Your task to perform on an android device: move an email to a new category in the gmail app Image 0: 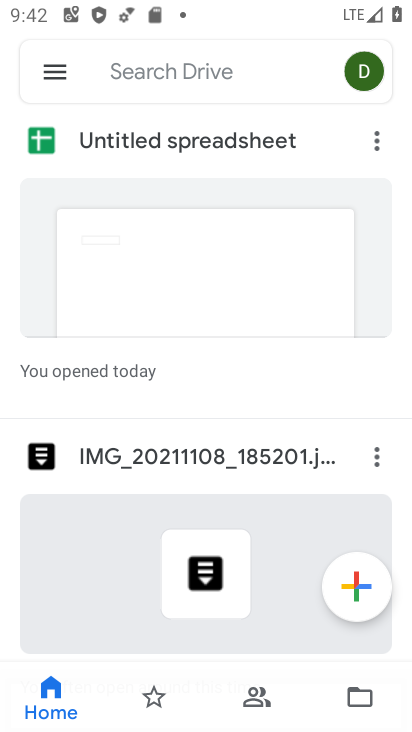
Step 0: press home button
Your task to perform on an android device: move an email to a new category in the gmail app Image 1: 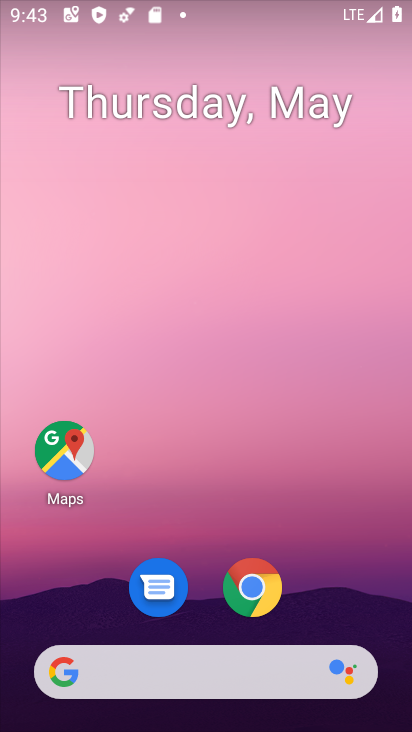
Step 1: drag from (308, 623) to (281, 12)
Your task to perform on an android device: move an email to a new category in the gmail app Image 2: 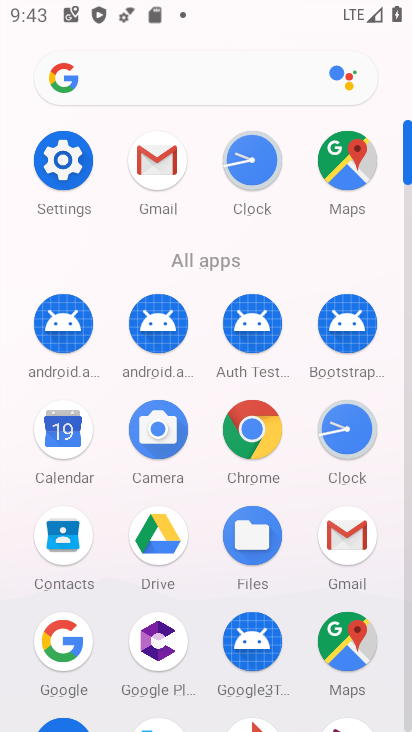
Step 2: click (149, 162)
Your task to perform on an android device: move an email to a new category in the gmail app Image 3: 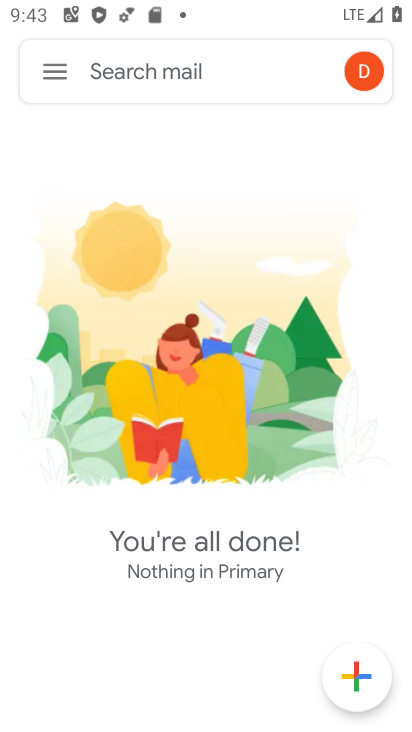
Step 3: click (57, 74)
Your task to perform on an android device: move an email to a new category in the gmail app Image 4: 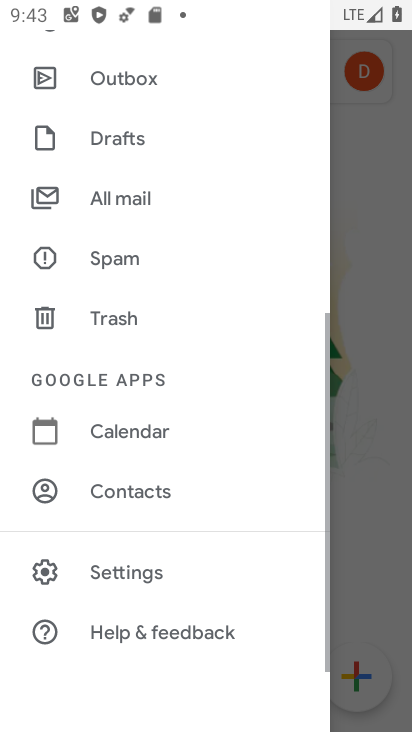
Step 4: click (116, 197)
Your task to perform on an android device: move an email to a new category in the gmail app Image 5: 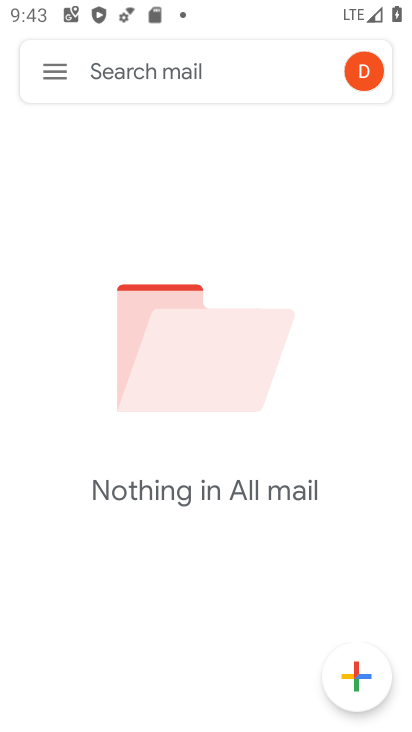
Step 5: task complete